Your task to perform on an android device: Search for Mexican restaurants on Maps Image 0: 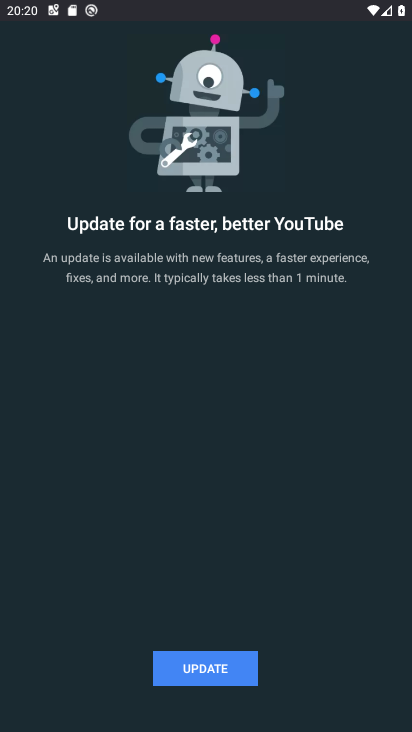
Step 0: press back button
Your task to perform on an android device: Search for Mexican restaurants on Maps Image 1: 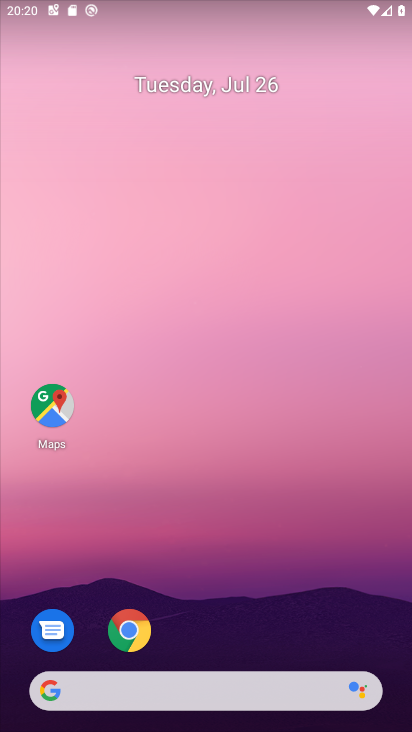
Step 1: click (44, 391)
Your task to perform on an android device: Search for Mexican restaurants on Maps Image 2: 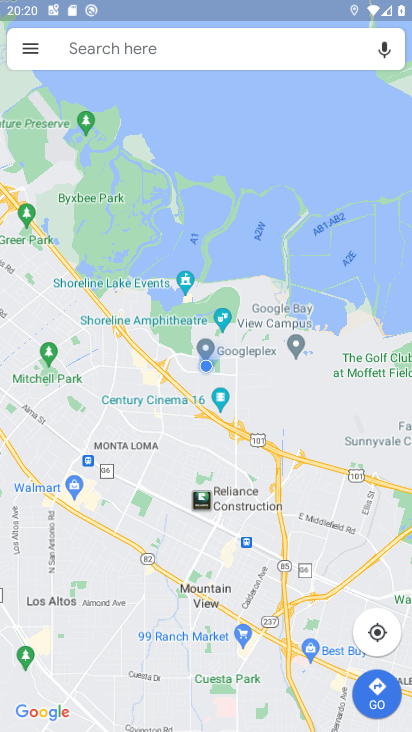
Step 2: click (94, 44)
Your task to perform on an android device: Search for Mexican restaurants on Maps Image 3: 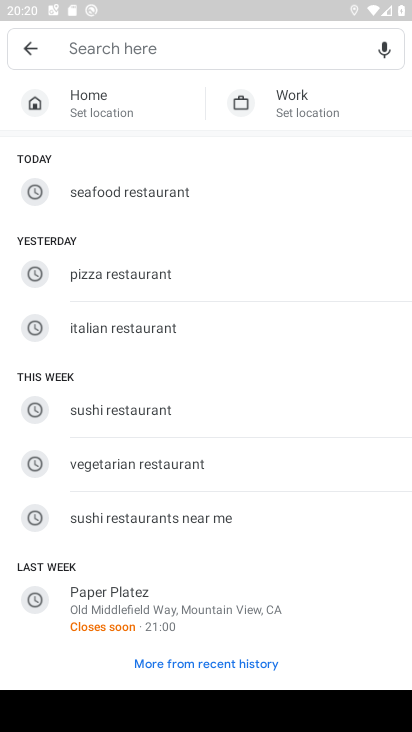
Step 3: type "Mexican restaurants"
Your task to perform on an android device: Search for Mexican restaurants on Maps Image 4: 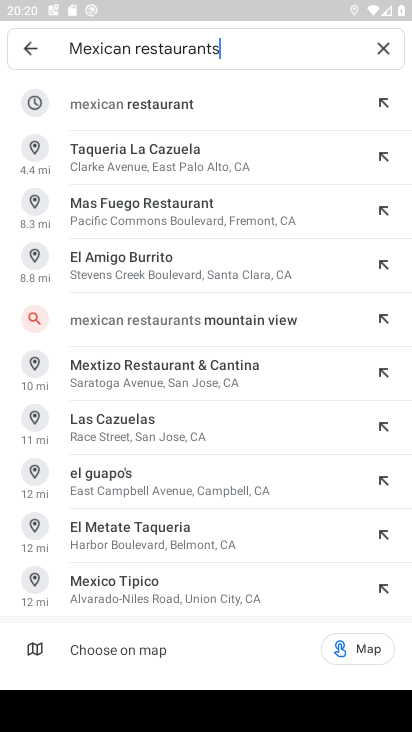
Step 4: click (121, 97)
Your task to perform on an android device: Search for Mexican restaurants on Maps Image 5: 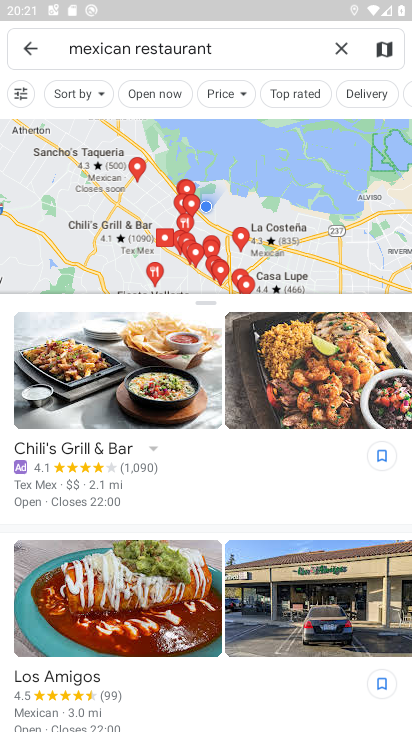
Step 5: task complete